Your task to perform on an android device: Go to CNN.com Image 0: 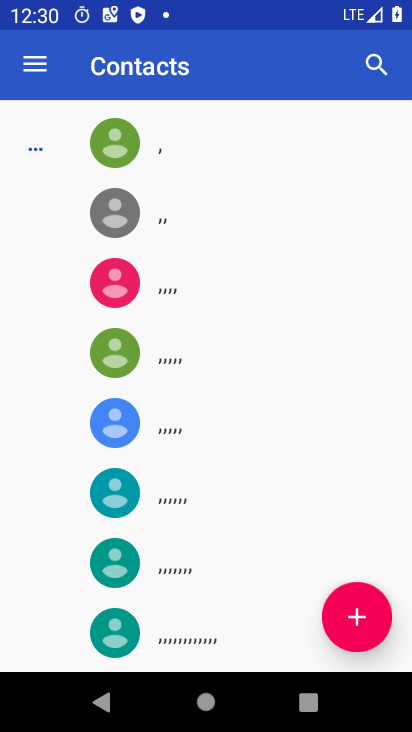
Step 0: press home button
Your task to perform on an android device: Go to CNN.com Image 1: 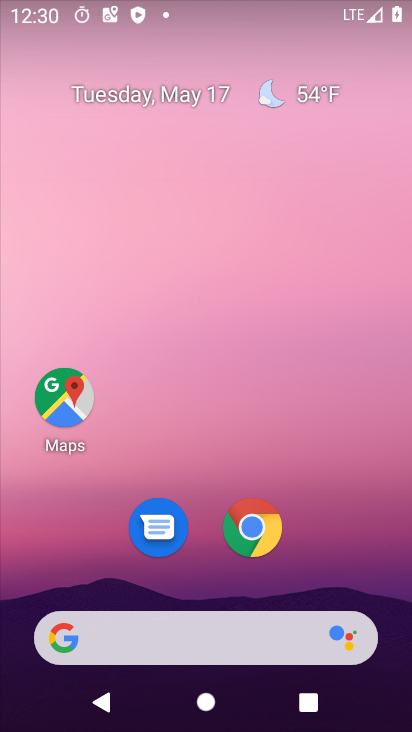
Step 1: drag from (256, 664) to (247, 123)
Your task to perform on an android device: Go to CNN.com Image 2: 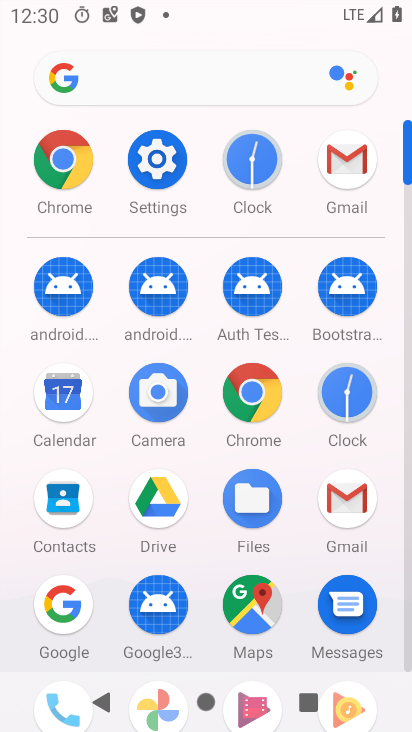
Step 2: click (82, 174)
Your task to perform on an android device: Go to CNN.com Image 3: 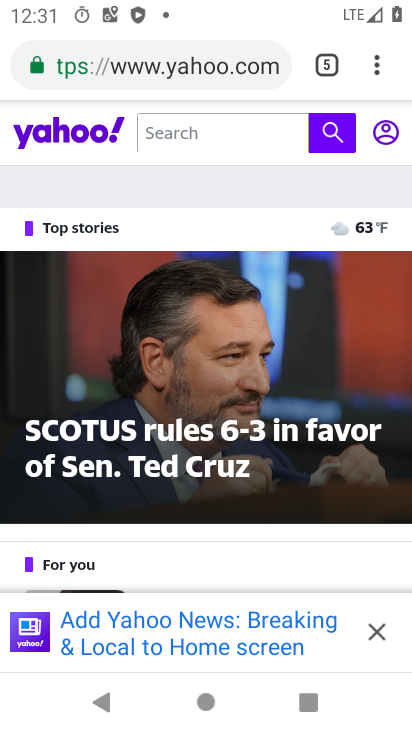
Step 3: click (154, 67)
Your task to perform on an android device: Go to CNN.com Image 4: 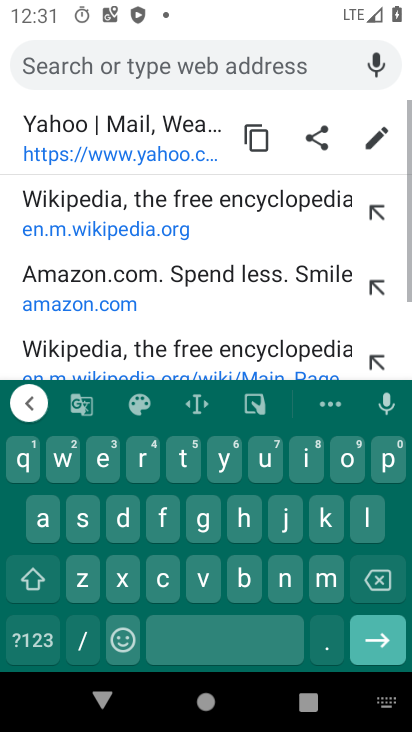
Step 4: click (159, 588)
Your task to perform on an android device: Go to CNN.com Image 5: 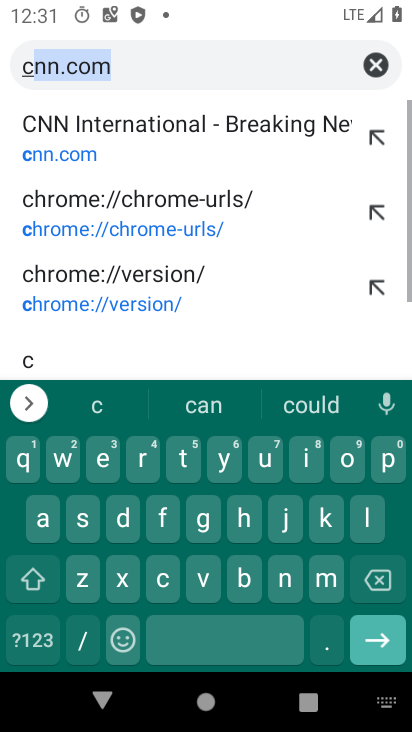
Step 5: click (283, 585)
Your task to perform on an android device: Go to CNN.com Image 6: 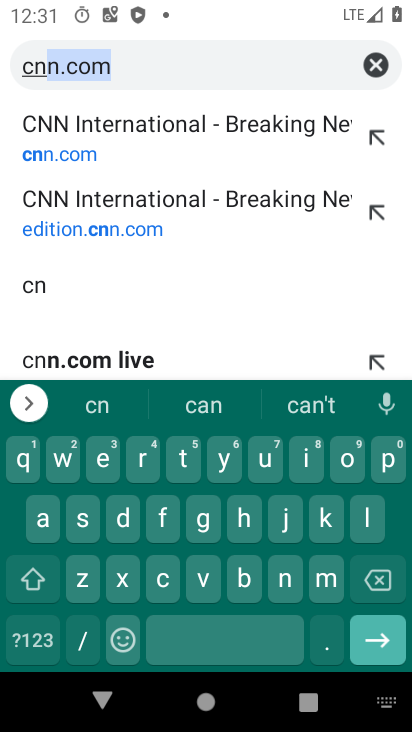
Step 6: click (138, 72)
Your task to perform on an android device: Go to CNN.com Image 7: 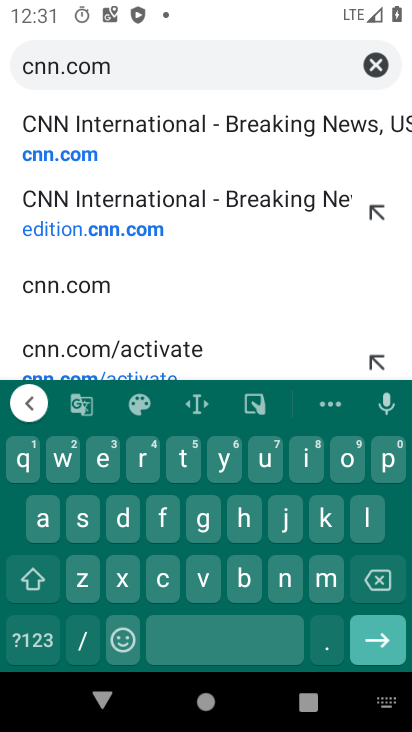
Step 7: click (369, 638)
Your task to perform on an android device: Go to CNN.com Image 8: 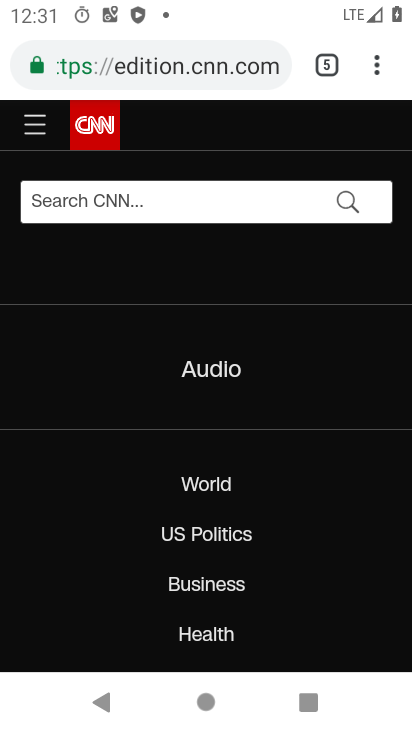
Step 8: task complete